Your task to perform on an android device: Search for pizza restaurants on Maps Image 0: 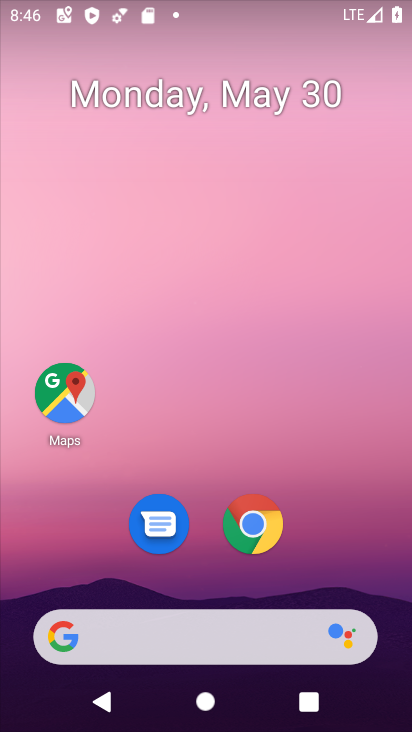
Step 0: click (51, 401)
Your task to perform on an android device: Search for pizza restaurants on Maps Image 1: 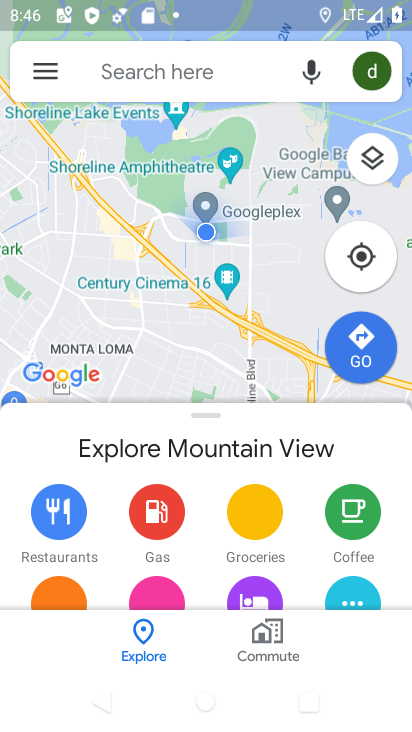
Step 1: click (199, 67)
Your task to perform on an android device: Search for pizza restaurants on Maps Image 2: 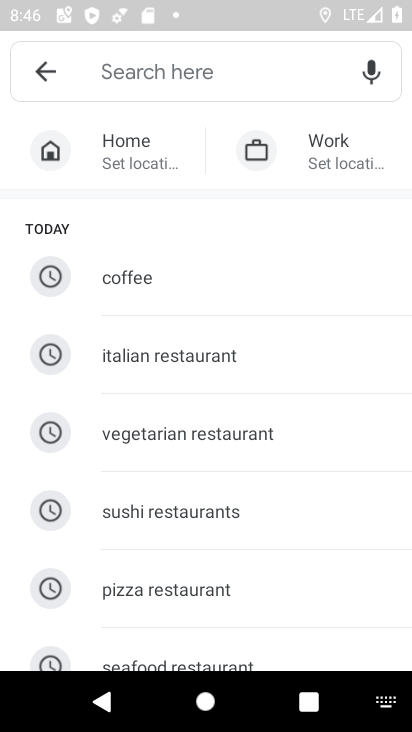
Step 2: click (188, 584)
Your task to perform on an android device: Search for pizza restaurants on Maps Image 3: 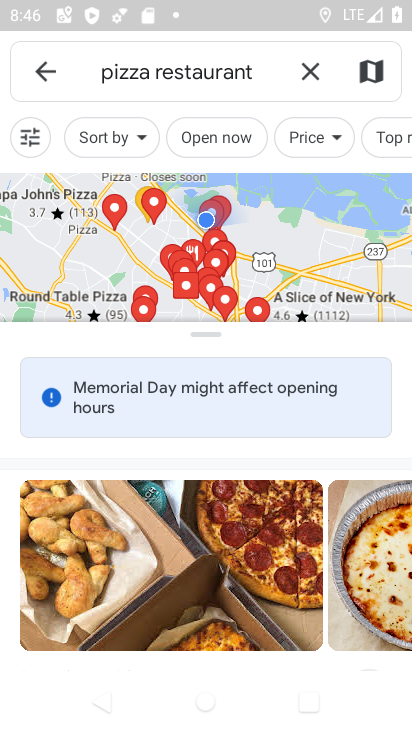
Step 3: task complete